Your task to perform on an android device: Open calendar and show me the first week of next month Image 0: 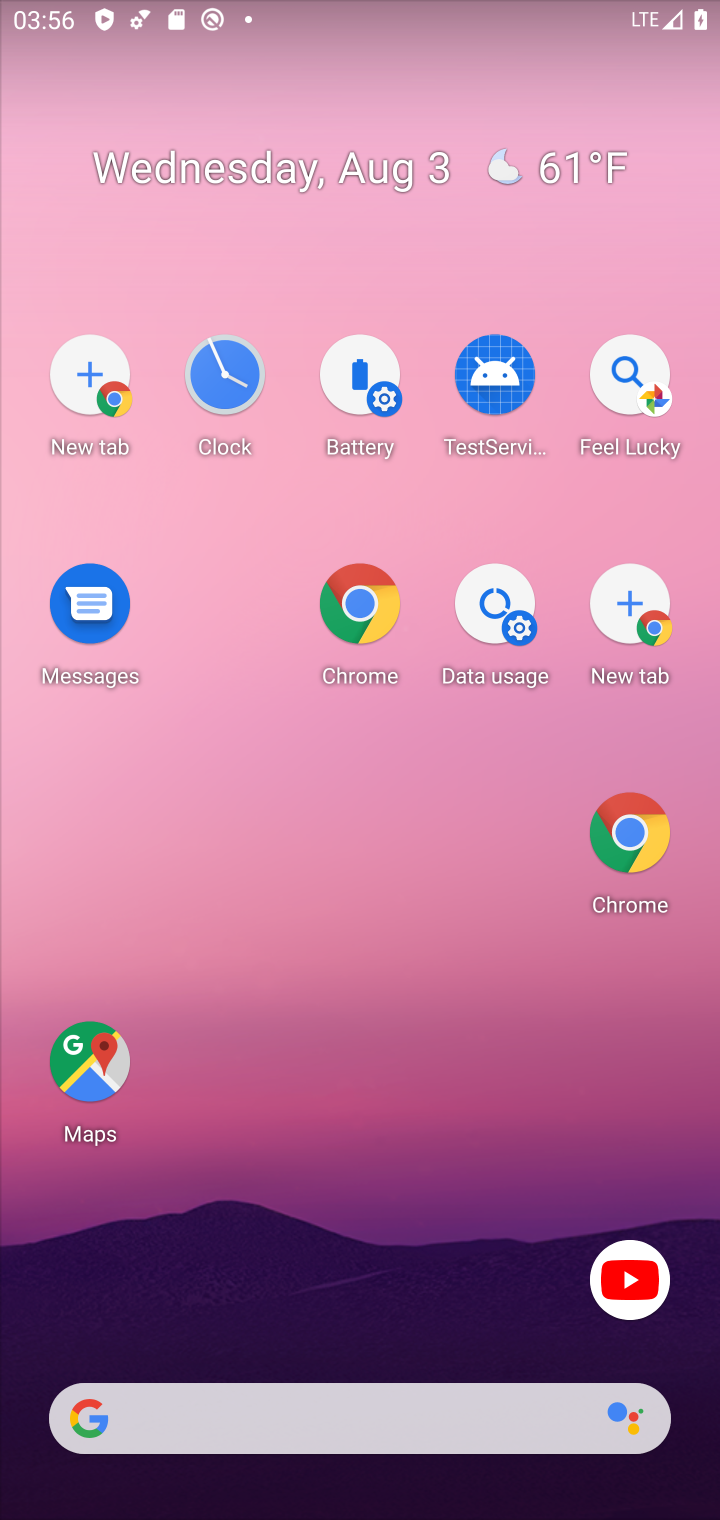
Step 0: press back button
Your task to perform on an android device: Open calendar and show me the first week of next month Image 1: 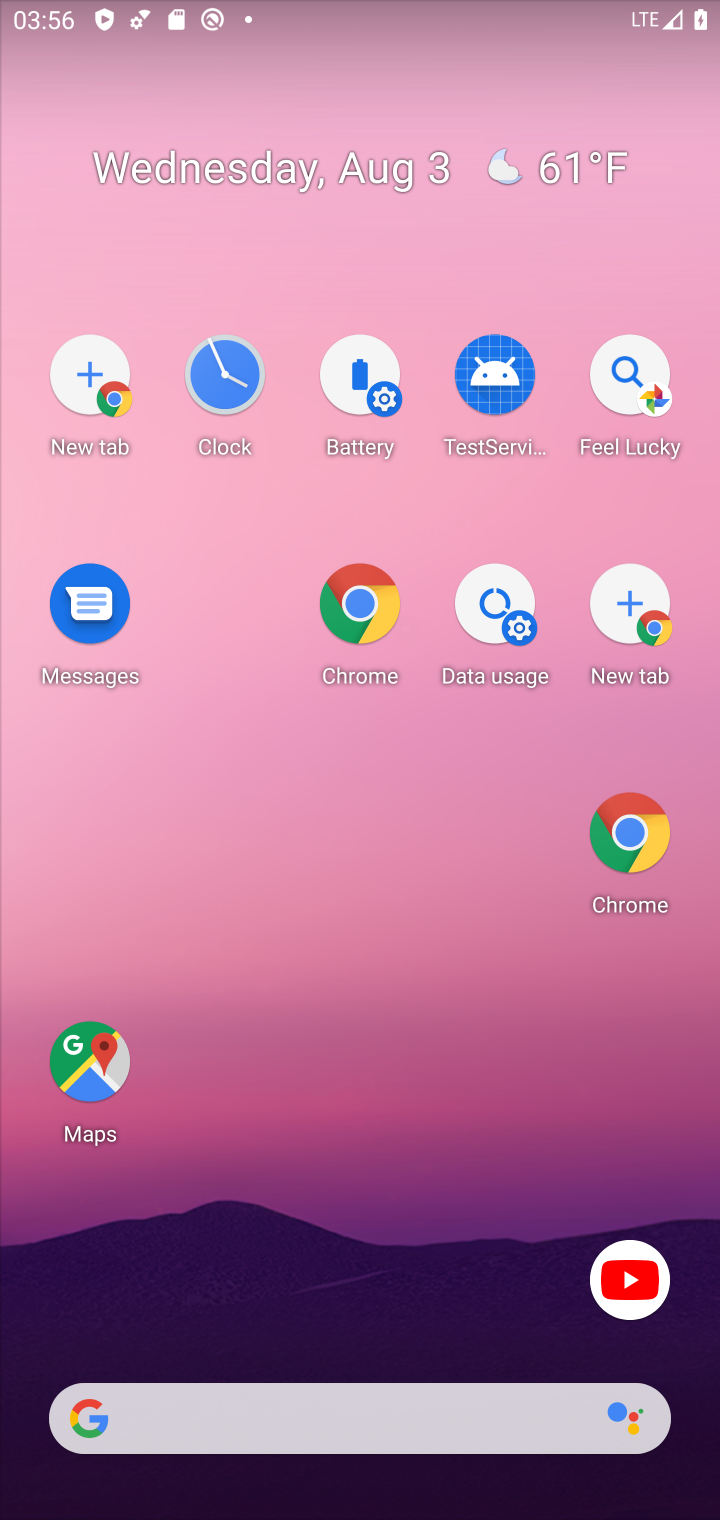
Step 1: drag from (419, 1492) to (277, 276)
Your task to perform on an android device: Open calendar and show me the first week of next month Image 2: 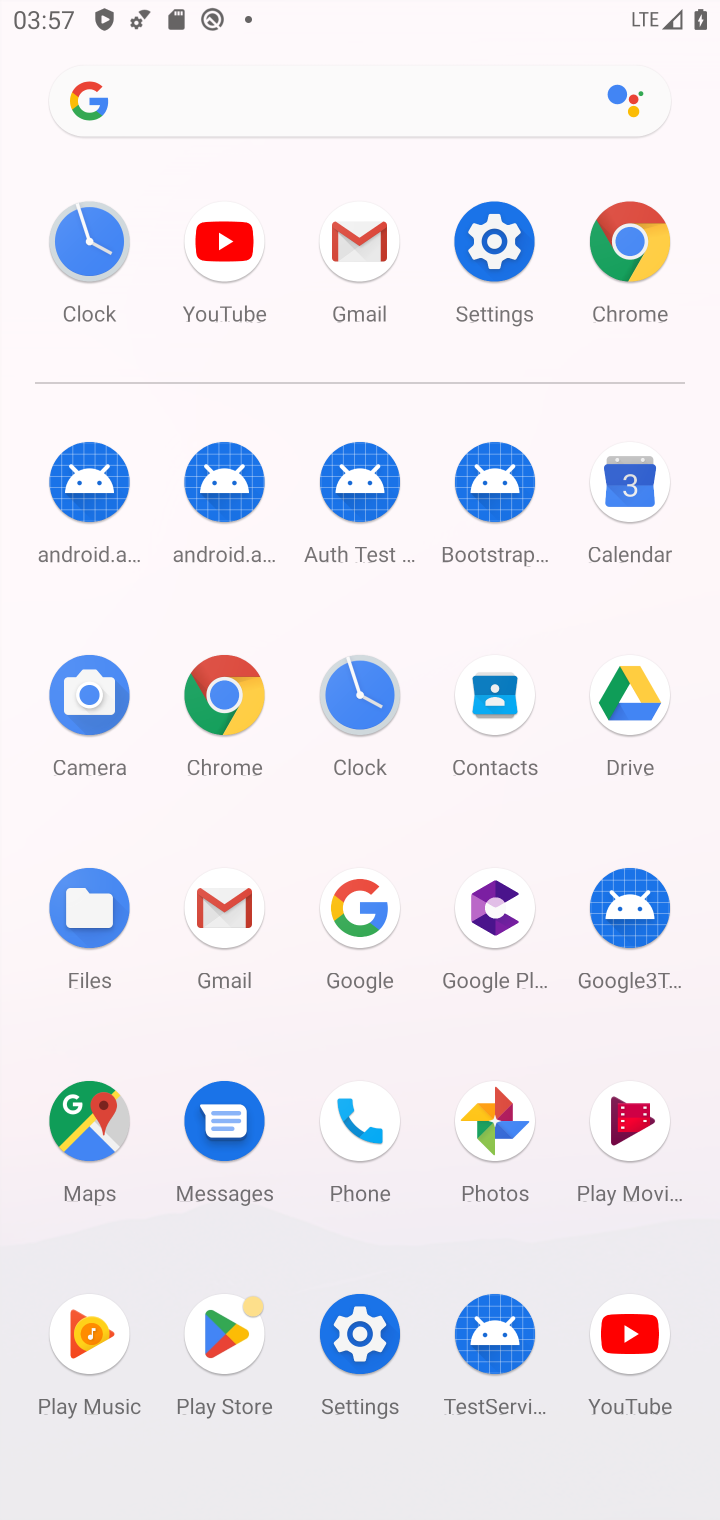
Step 2: click (621, 504)
Your task to perform on an android device: Open calendar and show me the first week of next month Image 3: 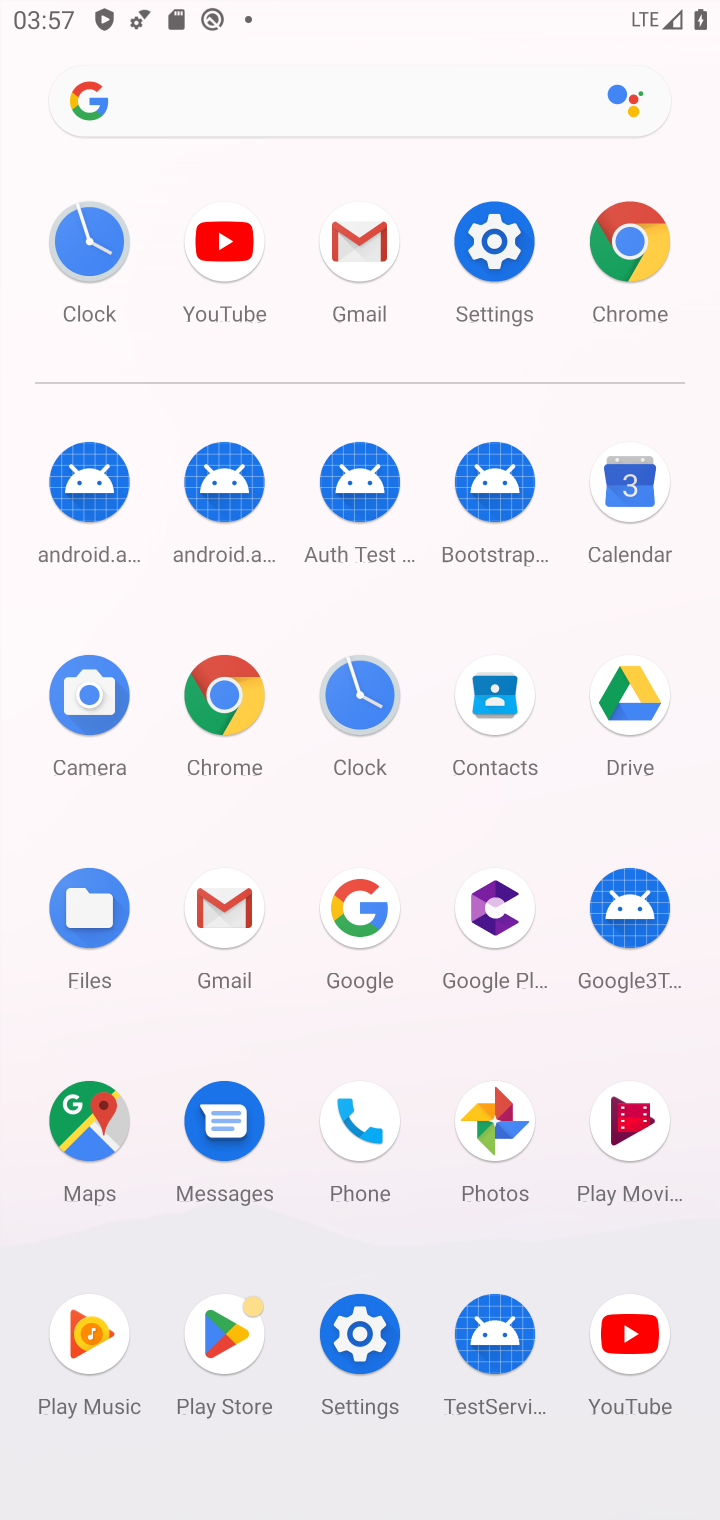
Step 3: click (625, 507)
Your task to perform on an android device: Open calendar and show me the first week of next month Image 4: 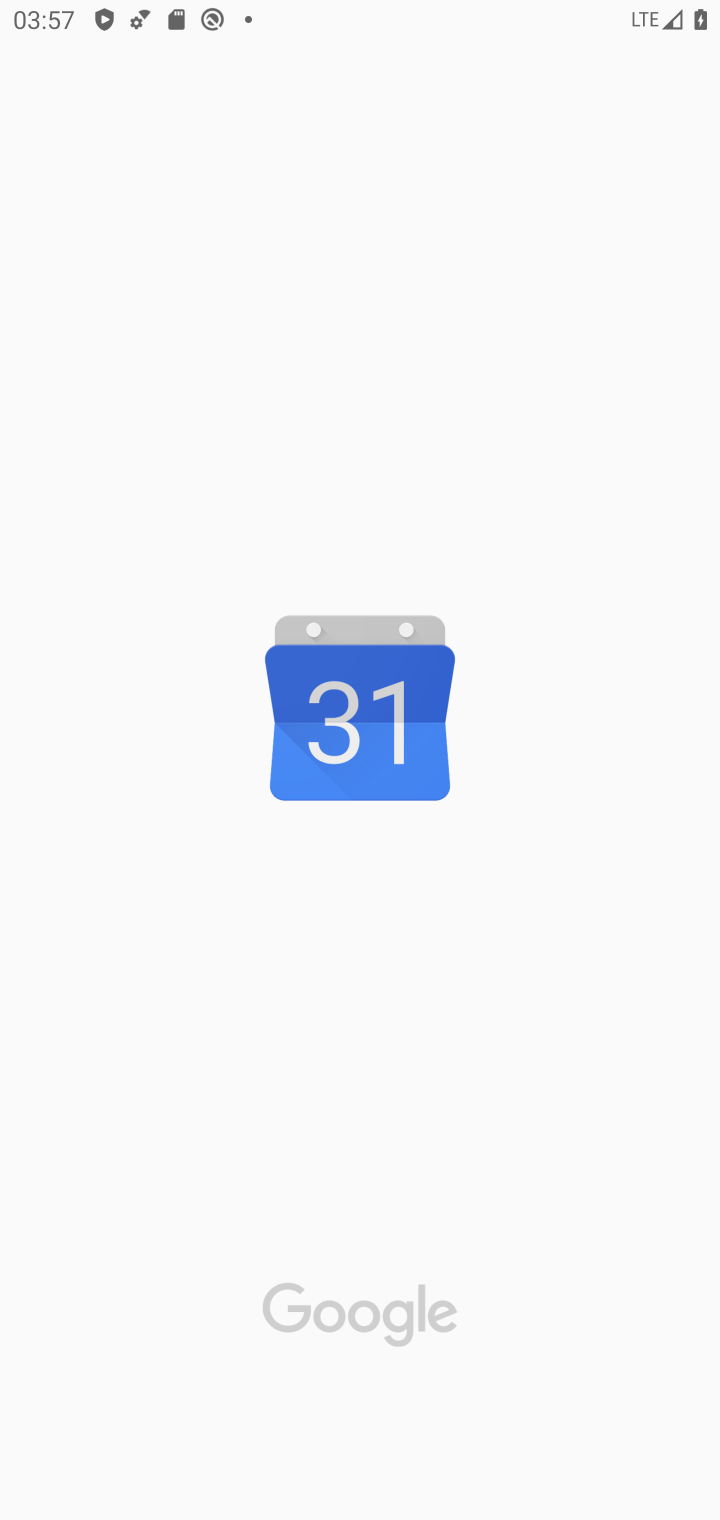
Step 4: click (636, 480)
Your task to perform on an android device: Open calendar and show me the first week of next month Image 5: 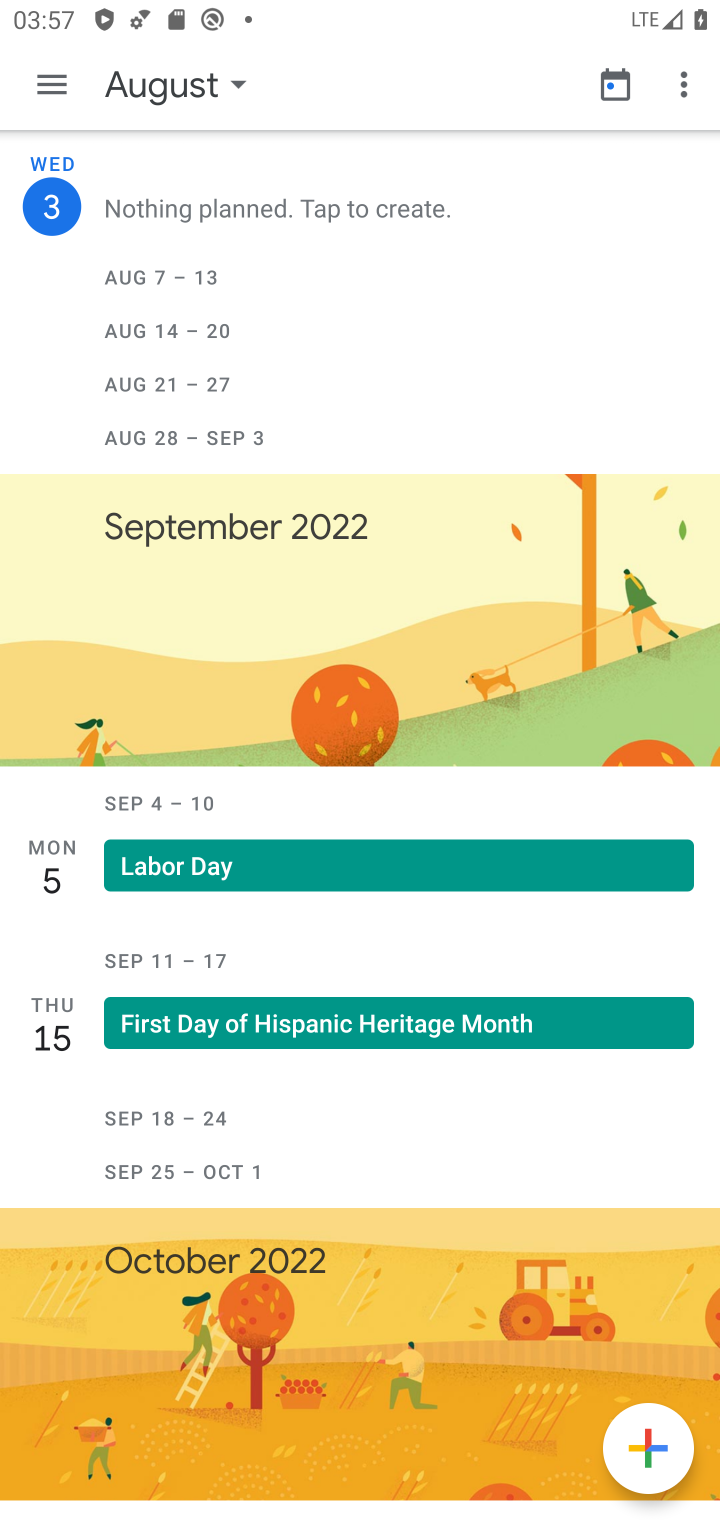
Step 5: click (243, 82)
Your task to perform on an android device: Open calendar and show me the first week of next month Image 6: 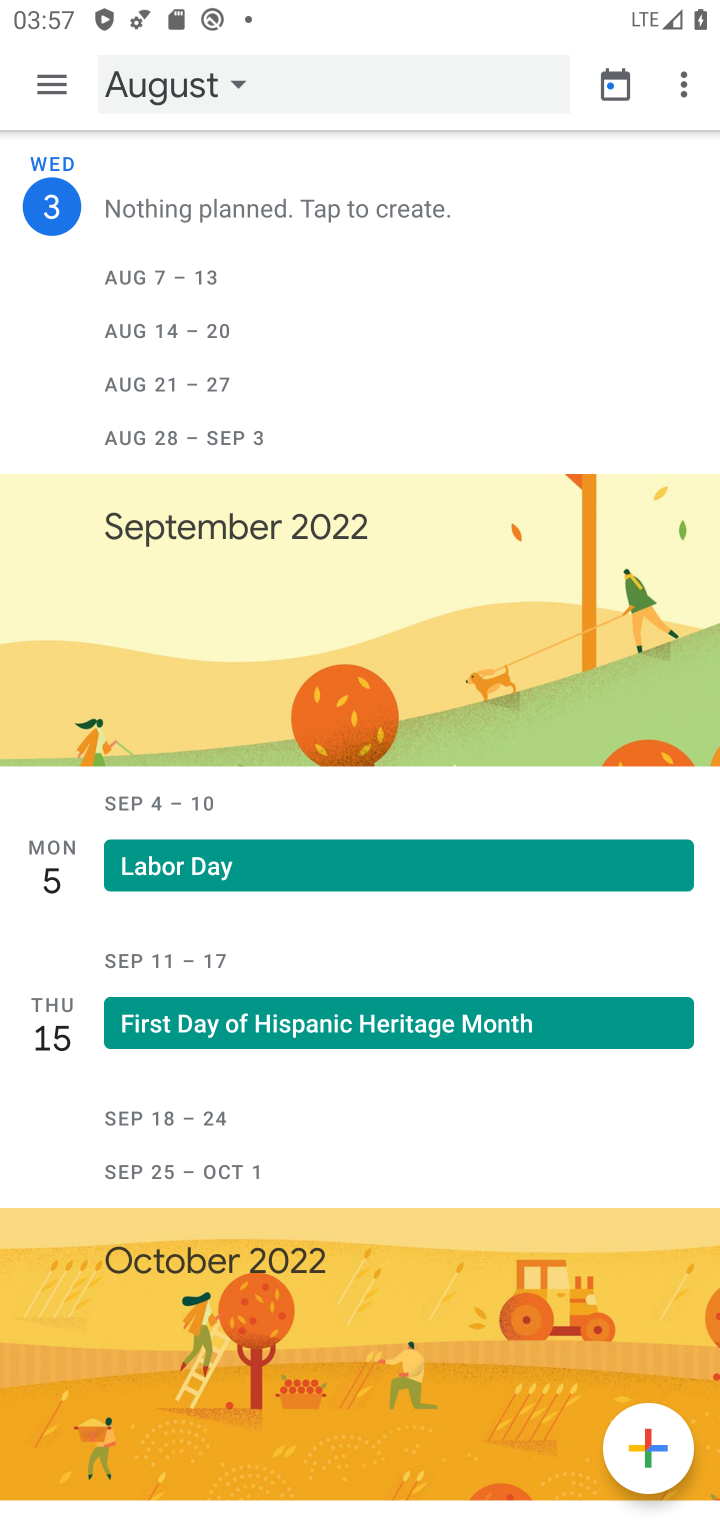
Step 6: click (219, 62)
Your task to perform on an android device: Open calendar and show me the first week of next month Image 7: 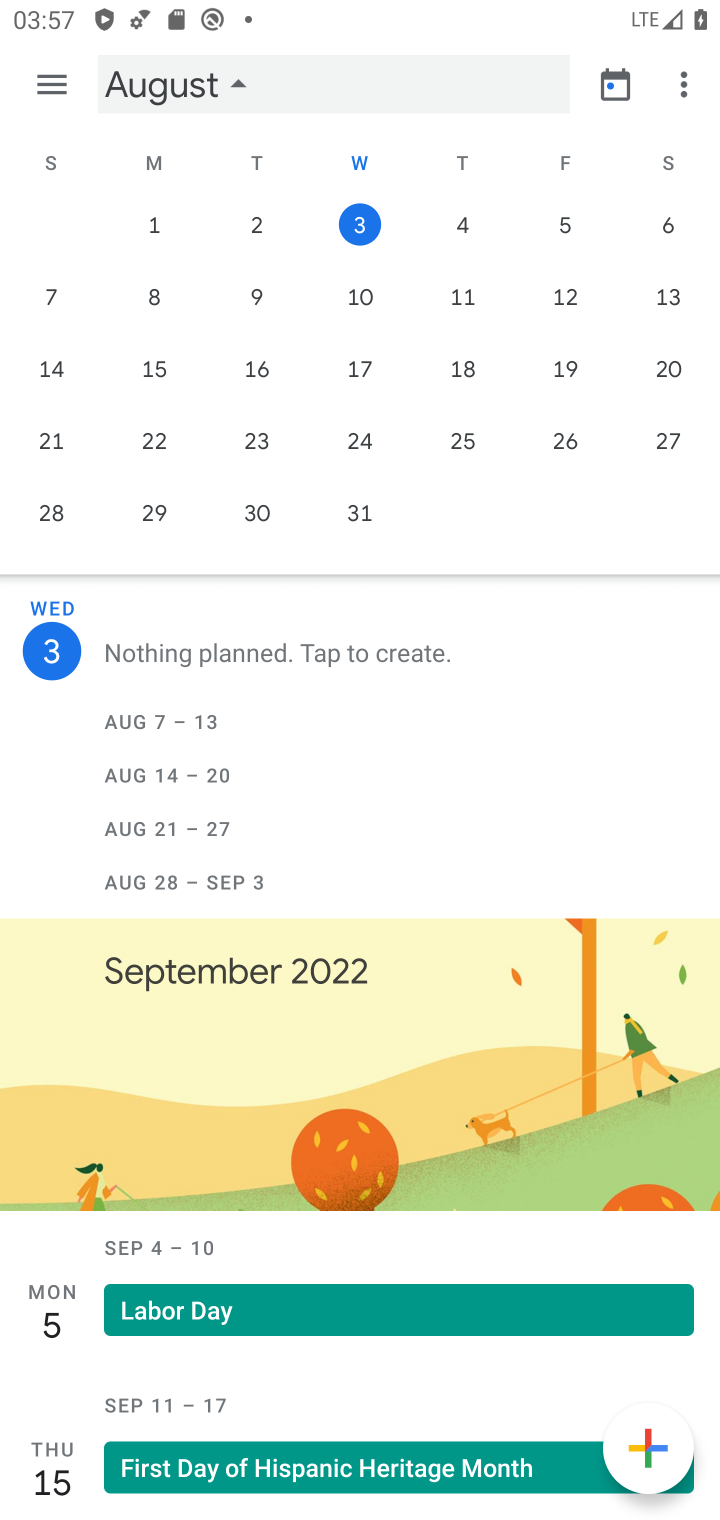
Step 7: click (217, 79)
Your task to perform on an android device: Open calendar and show me the first week of next month Image 8: 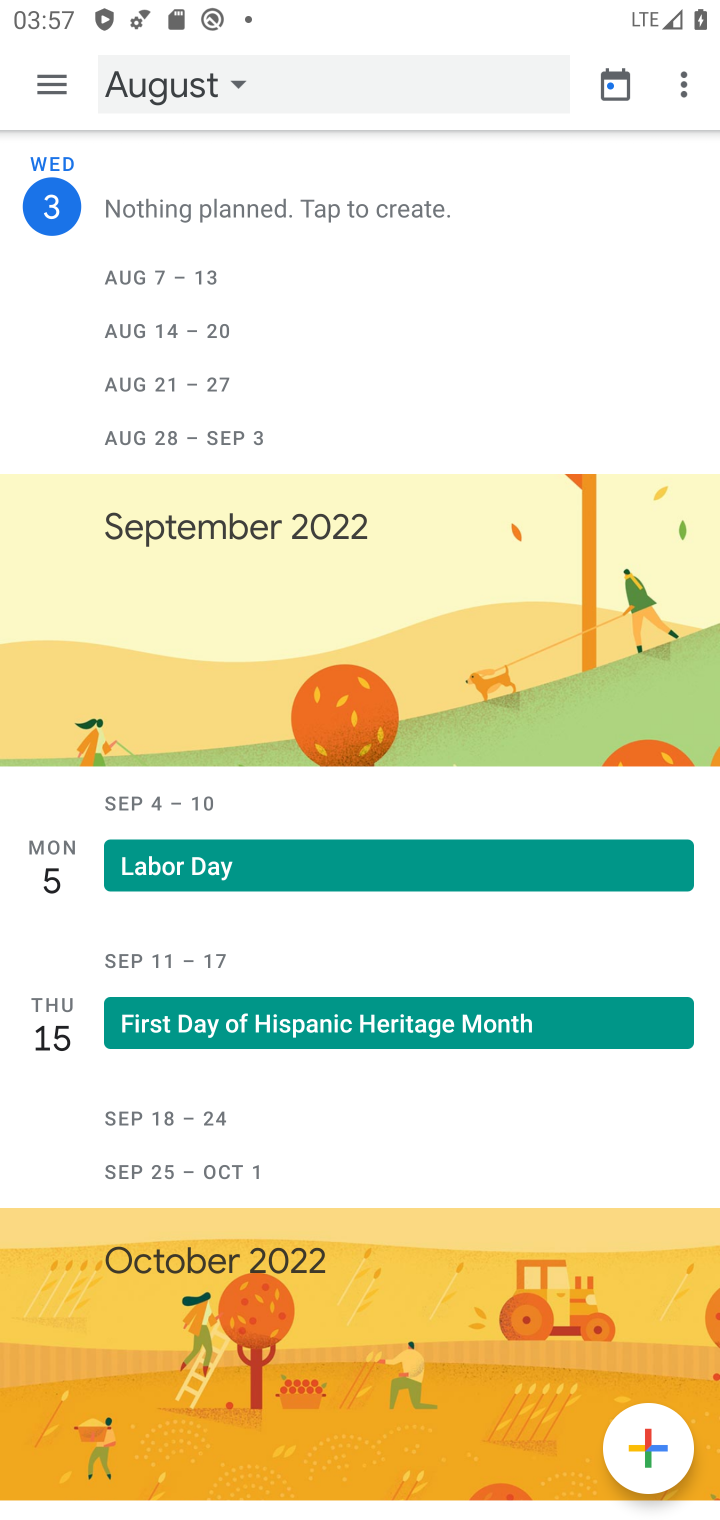
Step 8: drag from (616, 310) to (36, 125)
Your task to perform on an android device: Open calendar and show me the first week of next month Image 9: 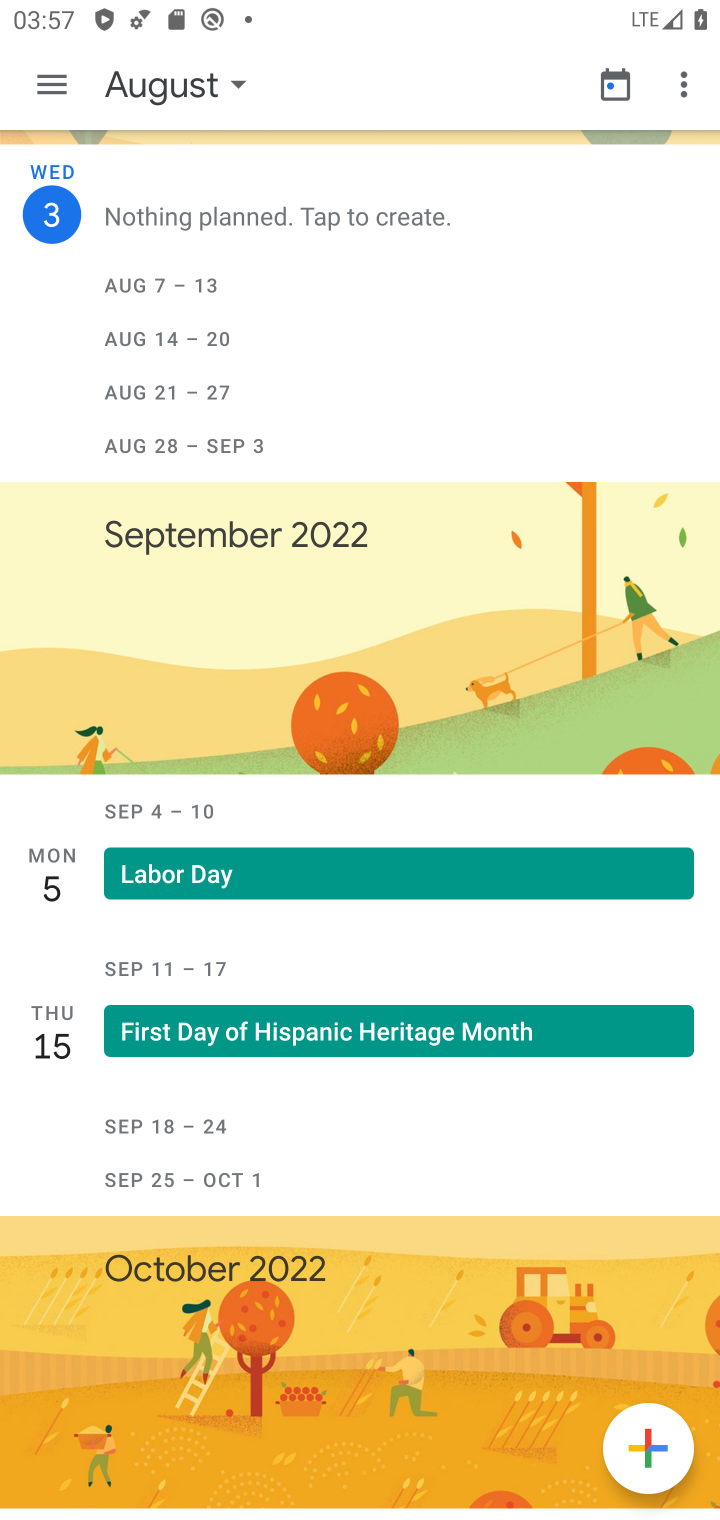
Step 9: click (225, 80)
Your task to perform on an android device: Open calendar and show me the first week of next month Image 10: 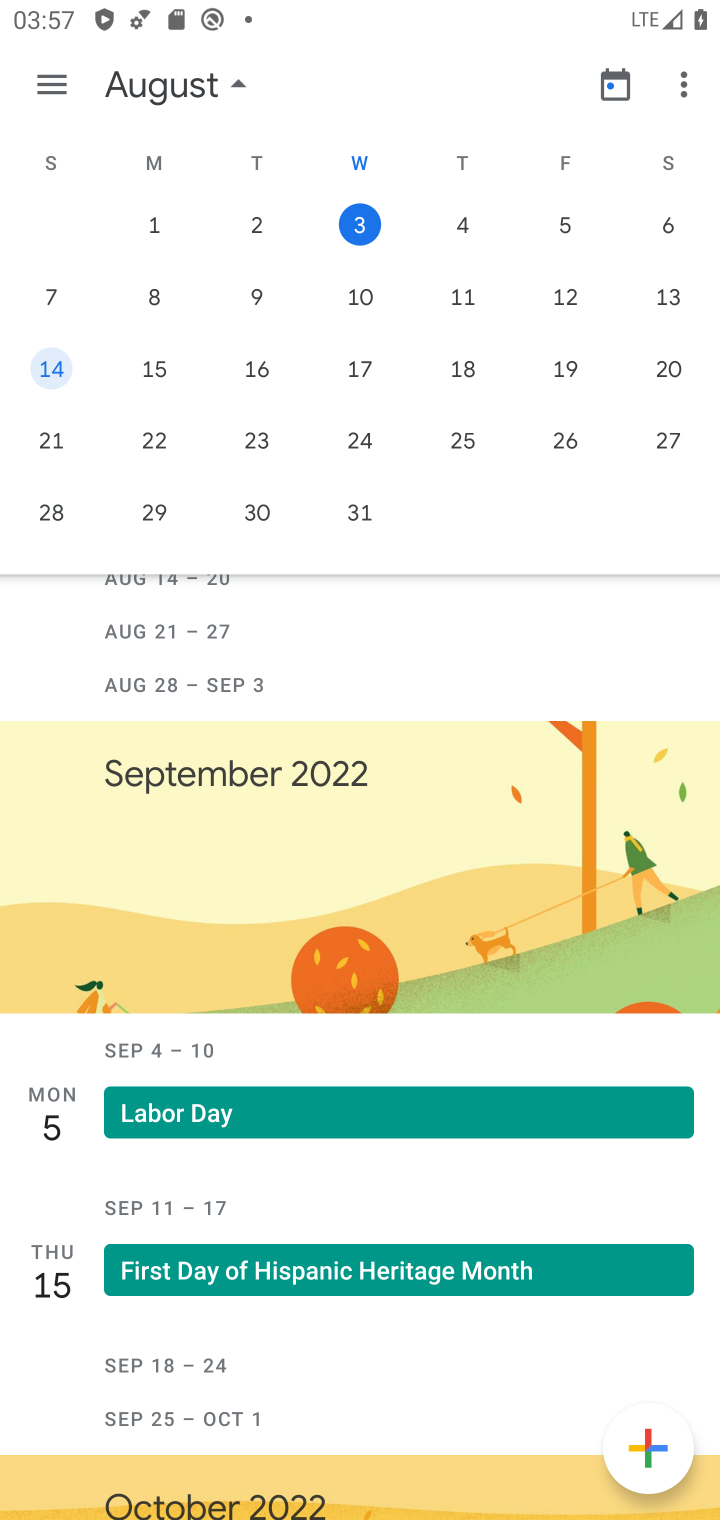
Step 10: drag from (119, 364) to (9, 410)
Your task to perform on an android device: Open calendar and show me the first week of next month Image 11: 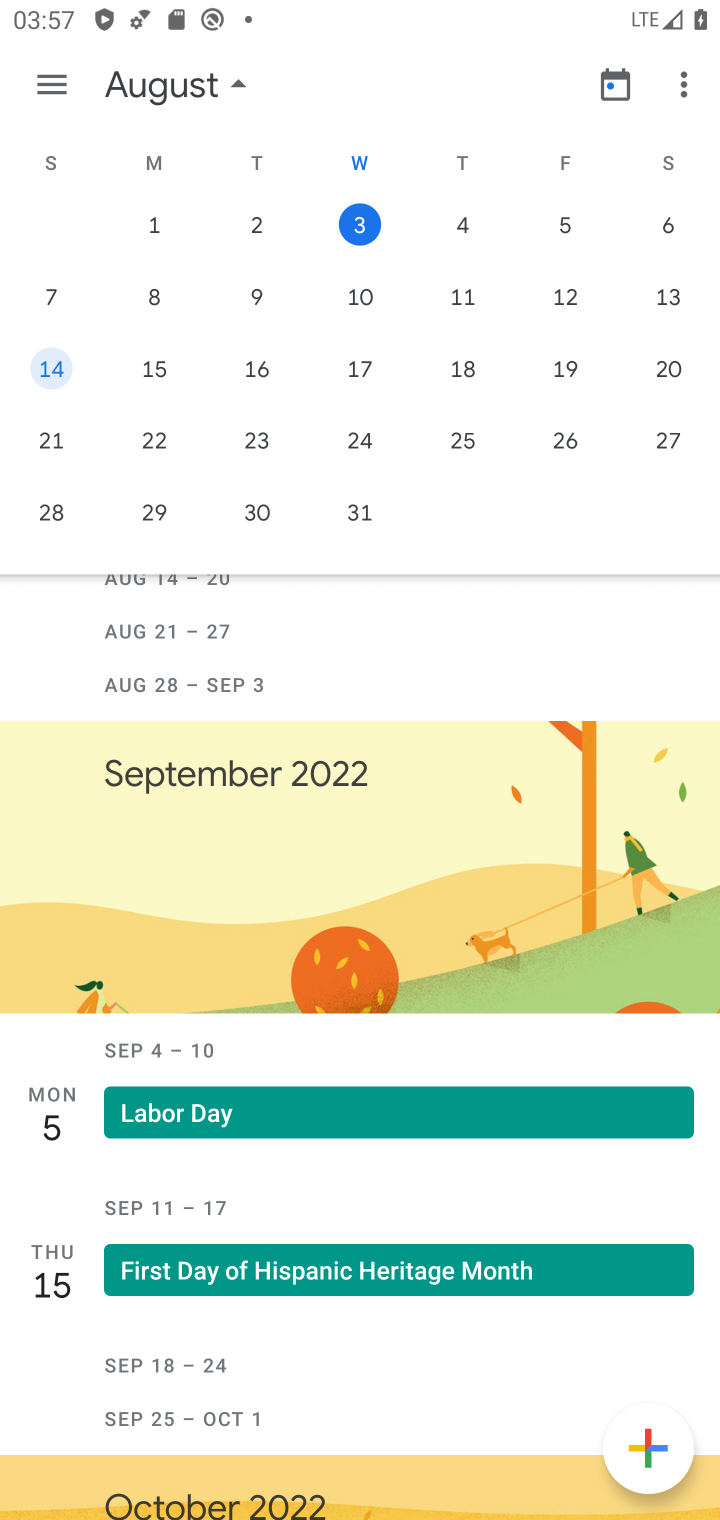
Step 11: drag from (431, 297) to (38, 147)
Your task to perform on an android device: Open calendar and show me the first week of next month Image 12: 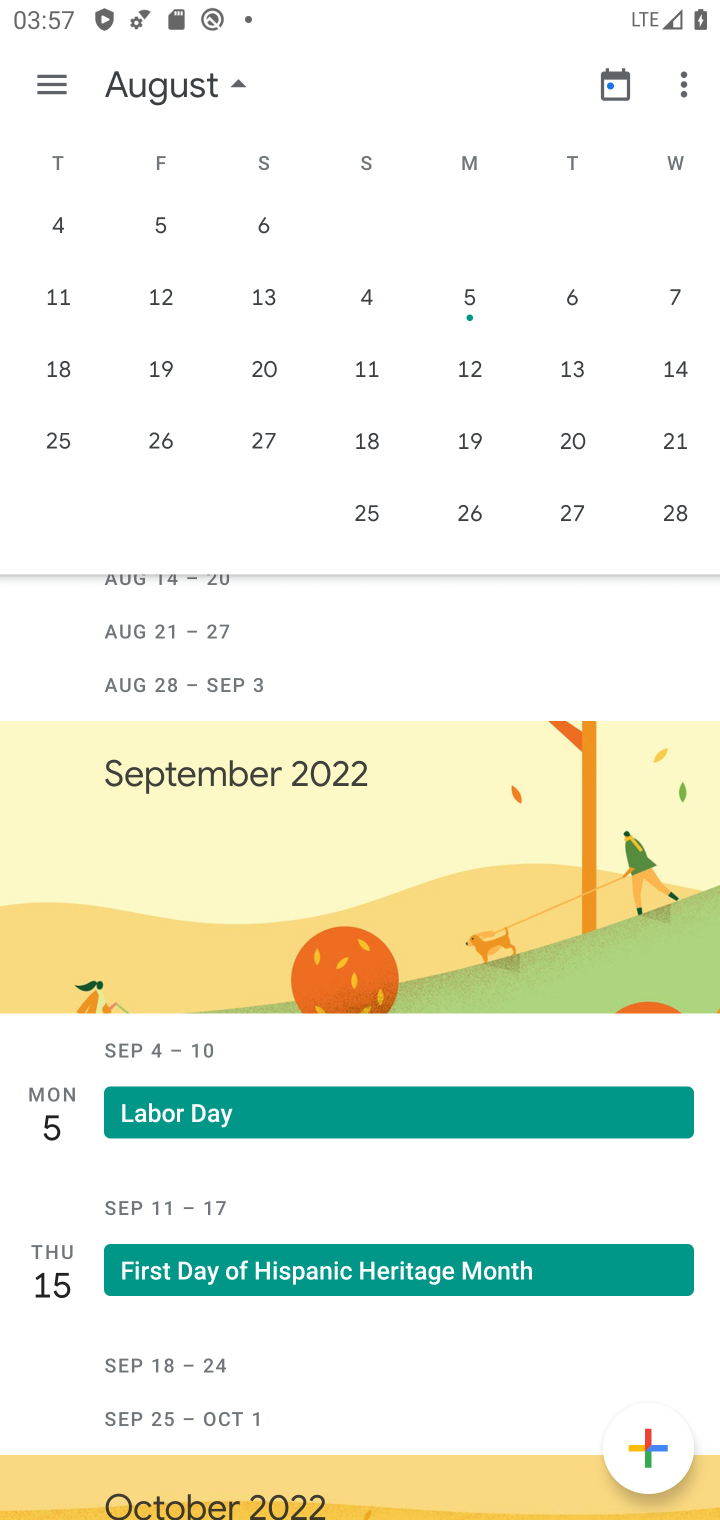
Step 12: click (83, 395)
Your task to perform on an android device: Open calendar and show me the first week of next month Image 13: 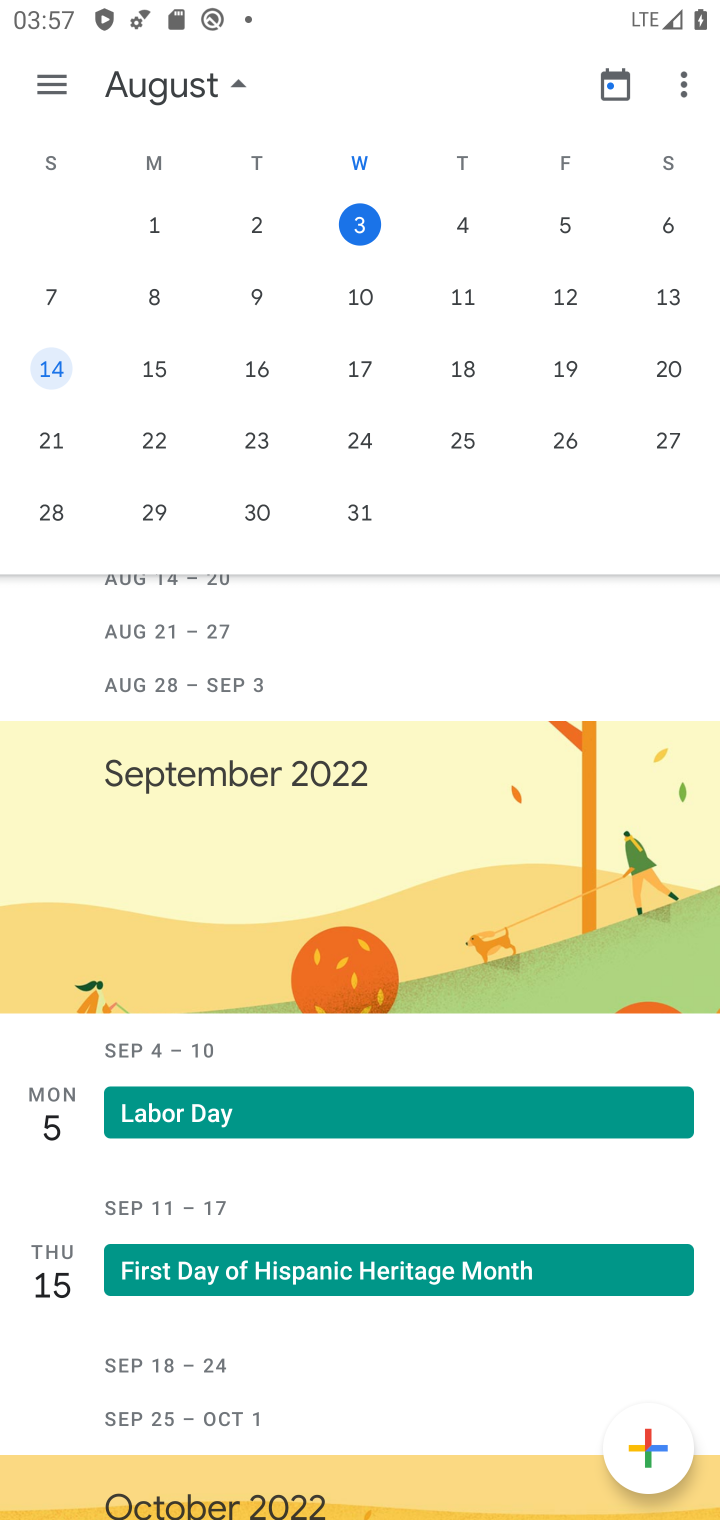
Step 13: click (94, 327)
Your task to perform on an android device: Open calendar and show me the first week of next month Image 14: 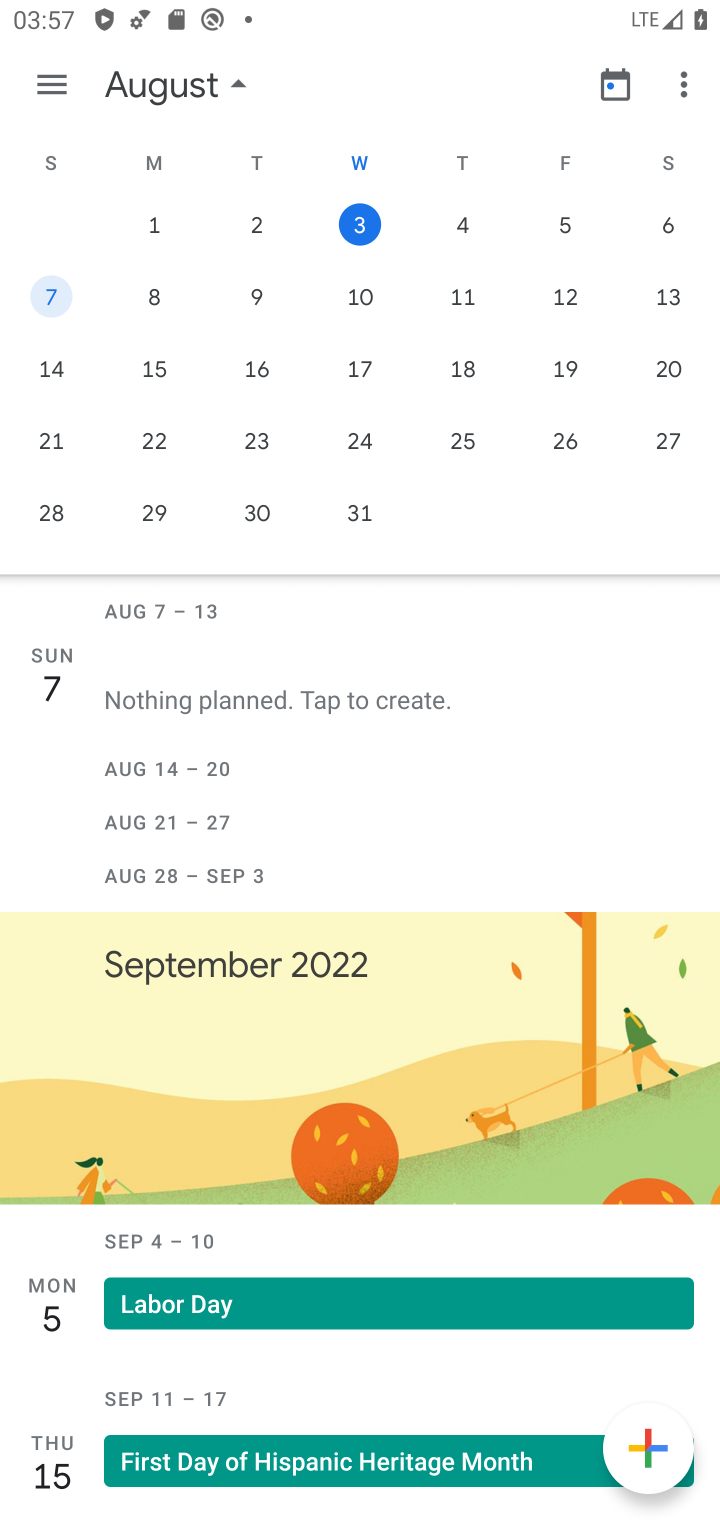
Step 14: click (10, 301)
Your task to perform on an android device: Open calendar and show me the first week of next month Image 15: 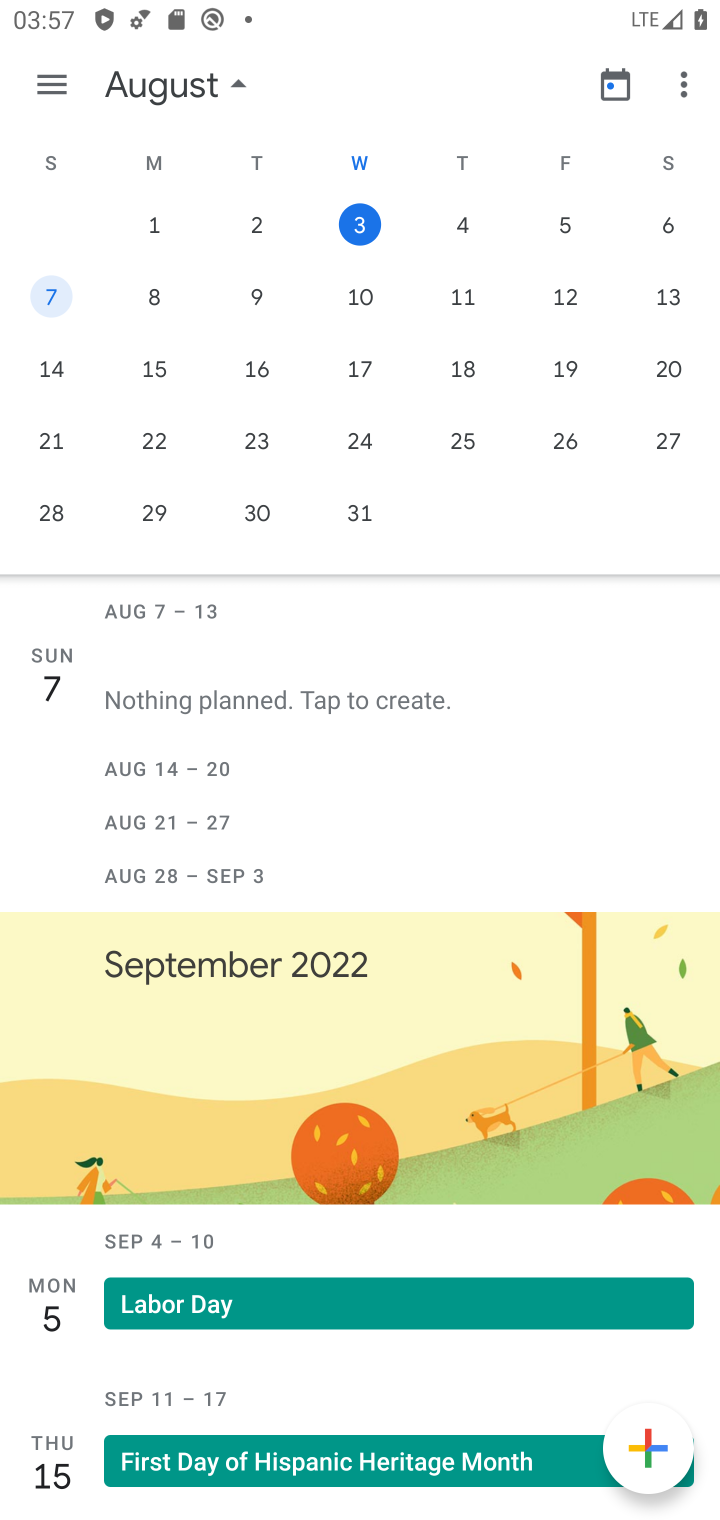
Step 15: task complete